Your task to perform on an android device: find snoozed emails in the gmail app Image 0: 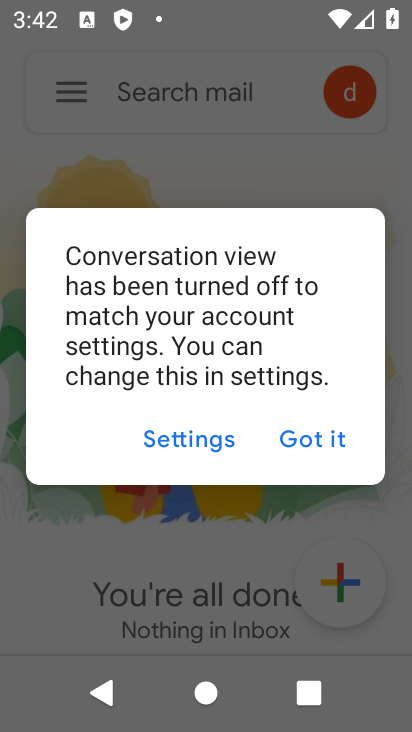
Step 0: task complete